Your task to perform on an android device: Check the news Image 0: 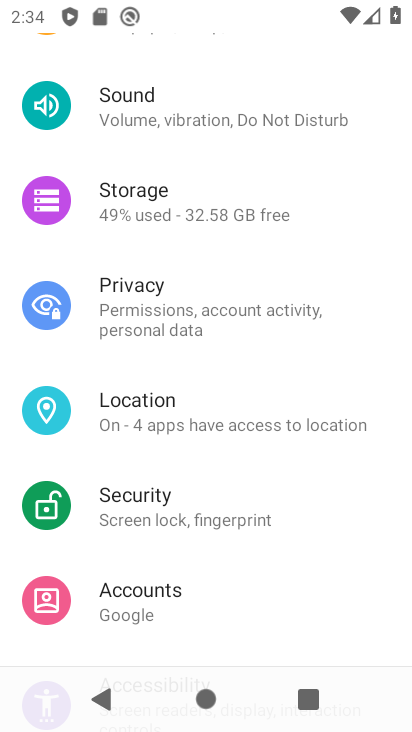
Step 0: press home button
Your task to perform on an android device: Check the news Image 1: 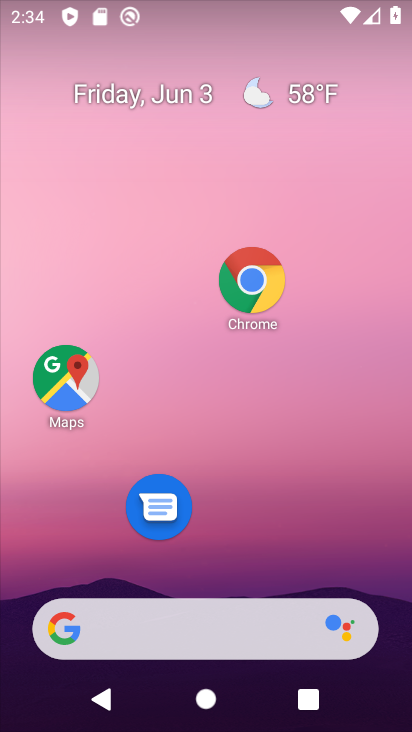
Step 1: drag from (239, 552) to (285, 94)
Your task to perform on an android device: Check the news Image 2: 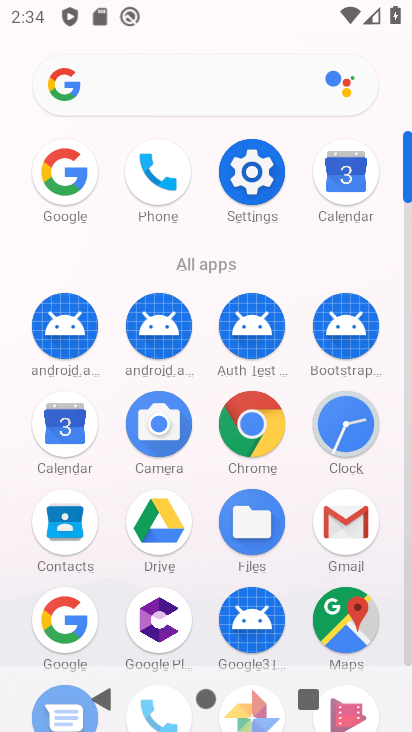
Step 2: click (72, 183)
Your task to perform on an android device: Check the news Image 3: 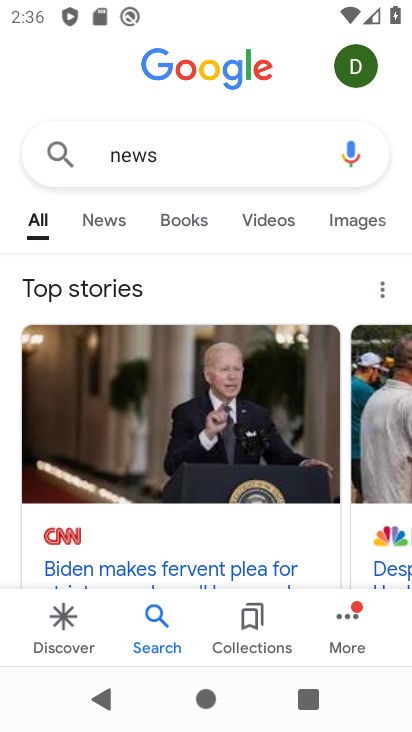
Step 3: task complete